Your task to perform on an android device: Go to Yahoo.com Image 0: 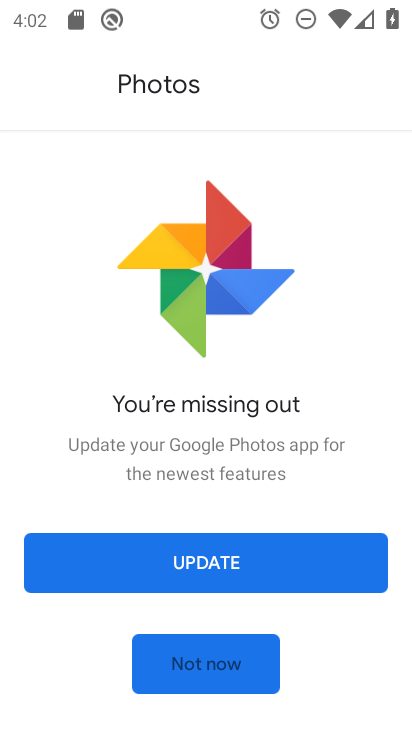
Step 0: press back button
Your task to perform on an android device: Go to Yahoo.com Image 1: 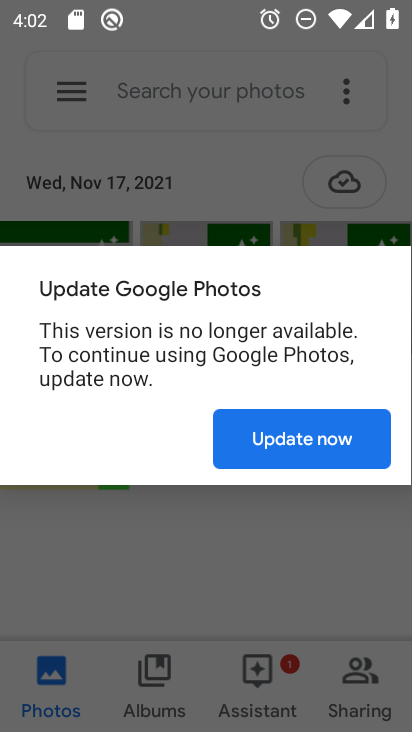
Step 1: press home button
Your task to perform on an android device: Go to Yahoo.com Image 2: 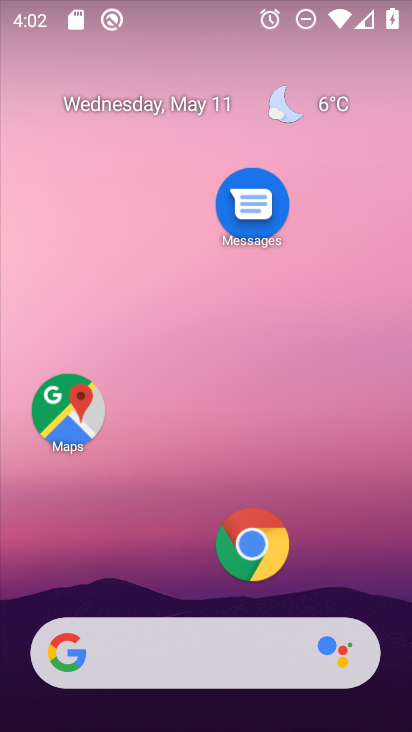
Step 2: click (253, 533)
Your task to perform on an android device: Go to Yahoo.com Image 3: 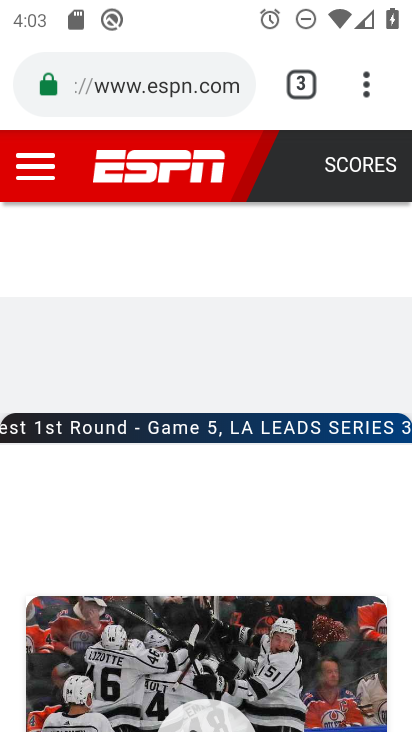
Step 3: click (311, 75)
Your task to perform on an android device: Go to Yahoo.com Image 4: 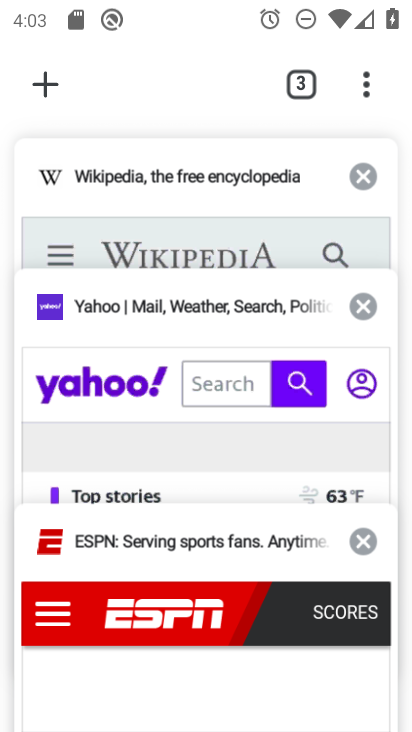
Step 4: click (135, 317)
Your task to perform on an android device: Go to Yahoo.com Image 5: 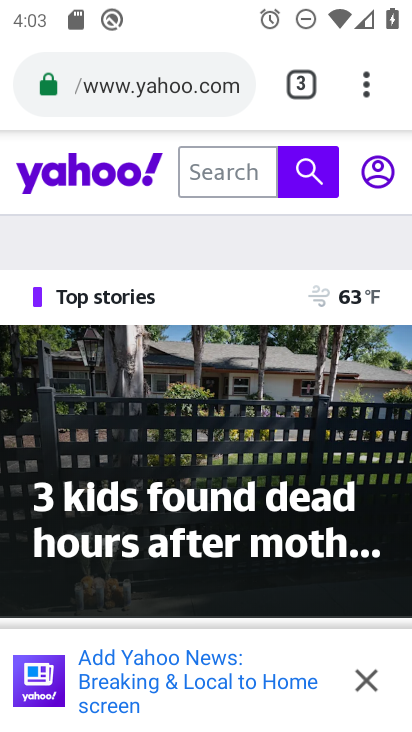
Step 5: task complete